Your task to perform on an android device: Turn on the flashlight Image 0: 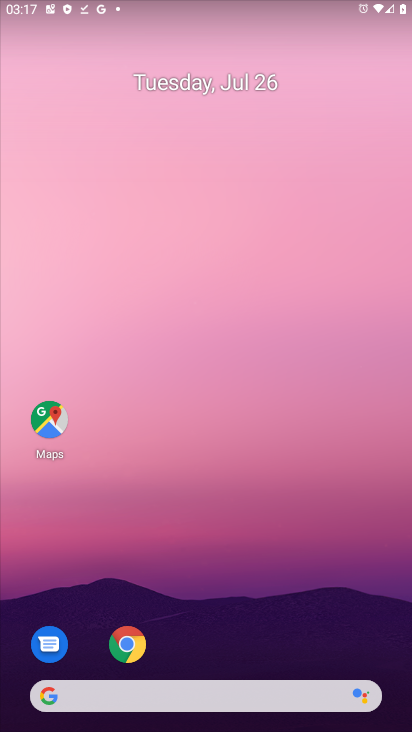
Step 0: drag from (225, 662) to (201, 144)
Your task to perform on an android device: Turn on the flashlight Image 1: 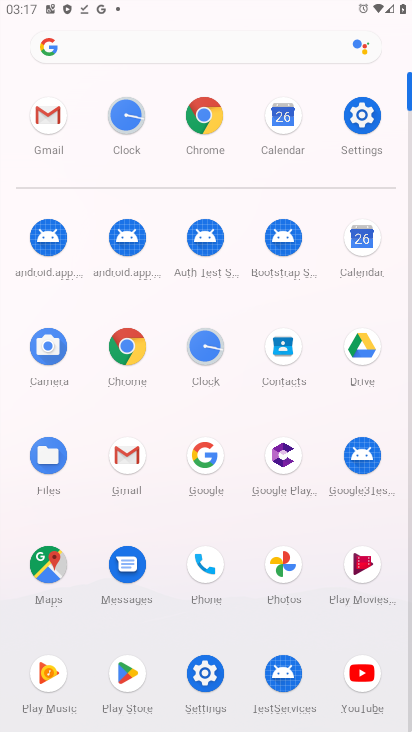
Step 1: click (209, 678)
Your task to perform on an android device: Turn on the flashlight Image 2: 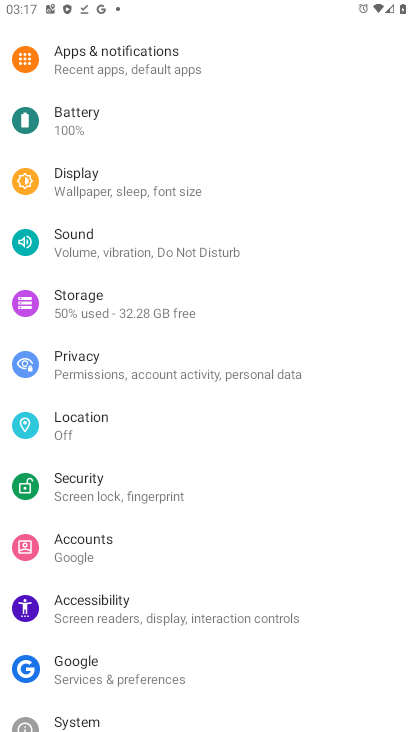
Step 2: task complete